Your task to perform on an android device: Go to location settings Image 0: 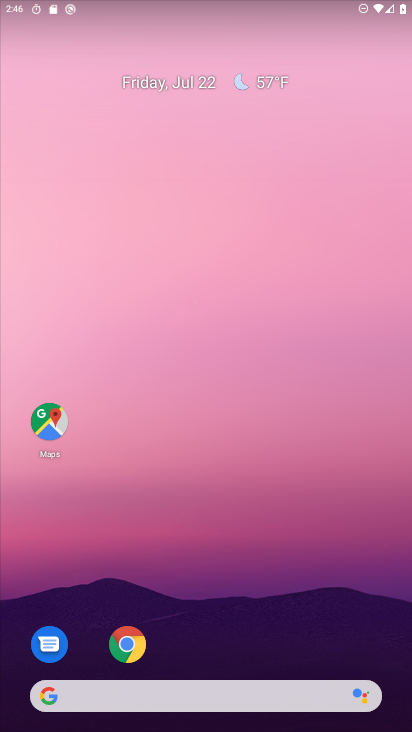
Step 0: drag from (244, 656) to (237, 364)
Your task to perform on an android device: Go to location settings Image 1: 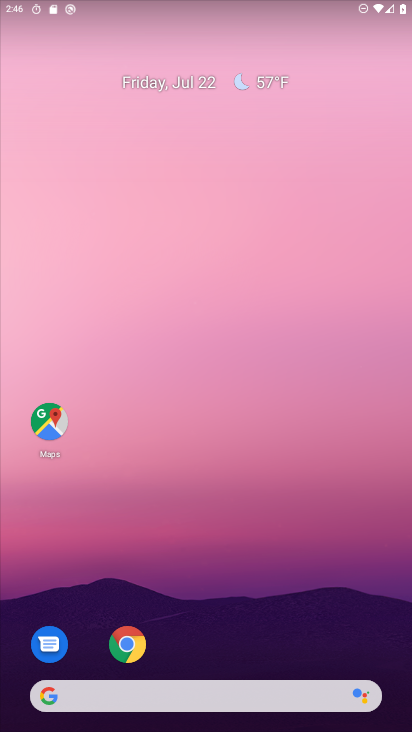
Step 1: drag from (230, 624) to (231, 81)
Your task to perform on an android device: Go to location settings Image 2: 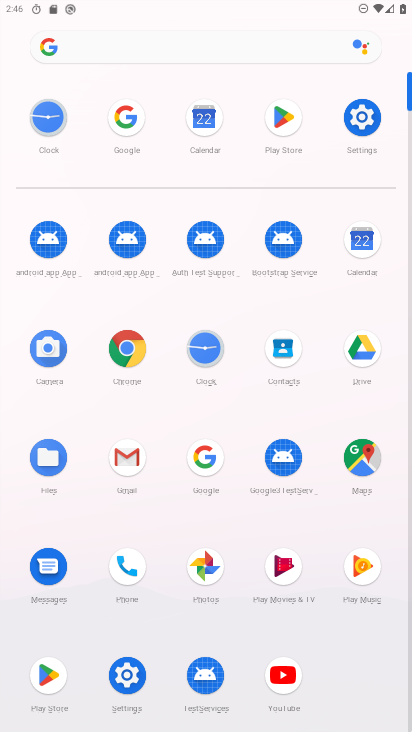
Step 2: click (355, 115)
Your task to perform on an android device: Go to location settings Image 3: 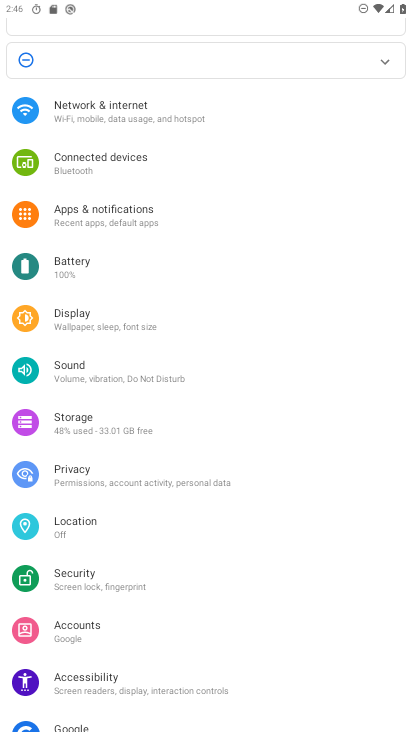
Step 3: click (136, 522)
Your task to perform on an android device: Go to location settings Image 4: 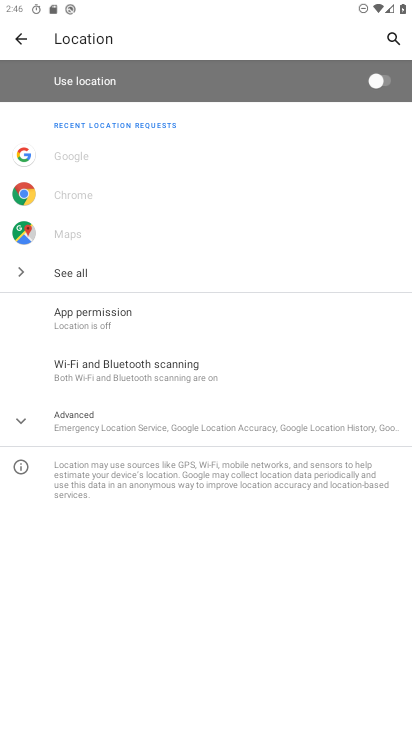
Step 4: task complete